Your task to perform on an android device: toggle improve location accuracy Image 0: 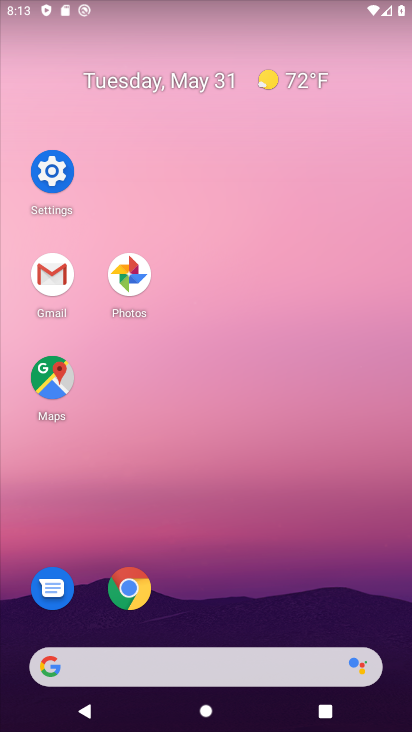
Step 0: click (48, 182)
Your task to perform on an android device: toggle improve location accuracy Image 1: 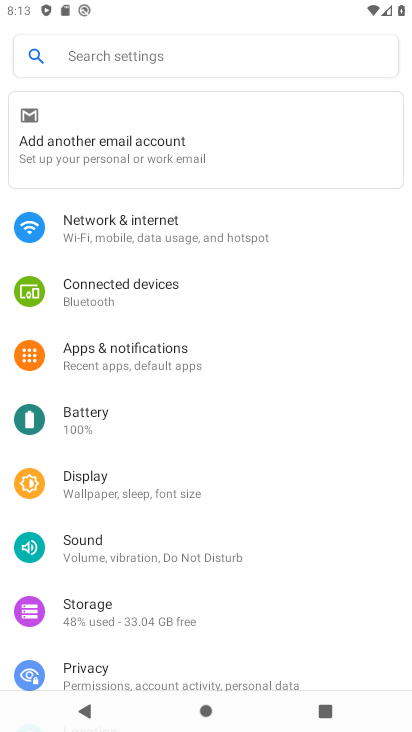
Step 1: drag from (207, 650) to (318, 436)
Your task to perform on an android device: toggle improve location accuracy Image 2: 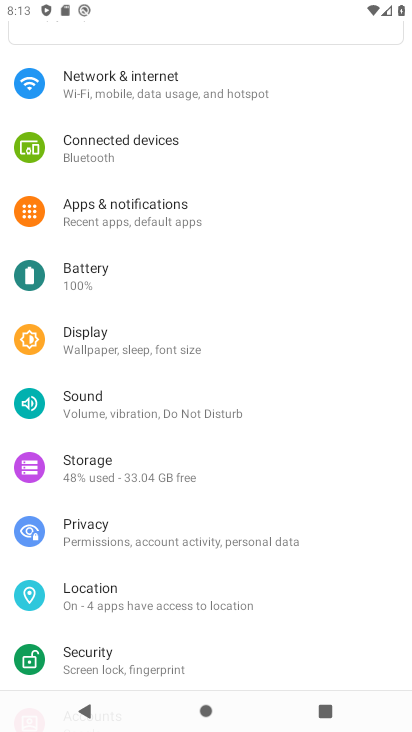
Step 2: click (119, 610)
Your task to perform on an android device: toggle improve location accuracy Image 3: 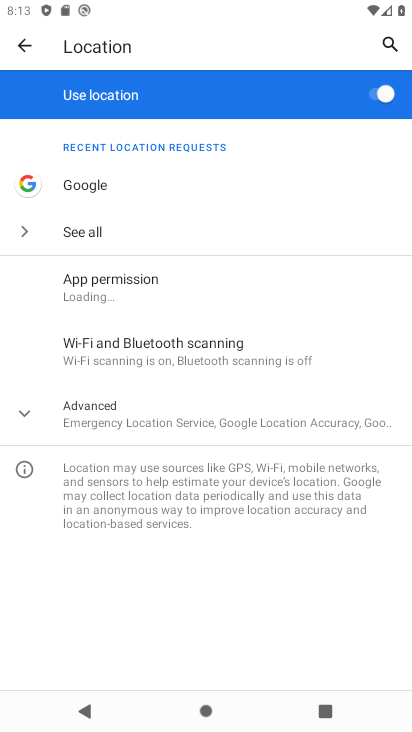
Step 3: click (146, 407)
Your task to perform on an android device: toggle improve location accuracy Image 4: 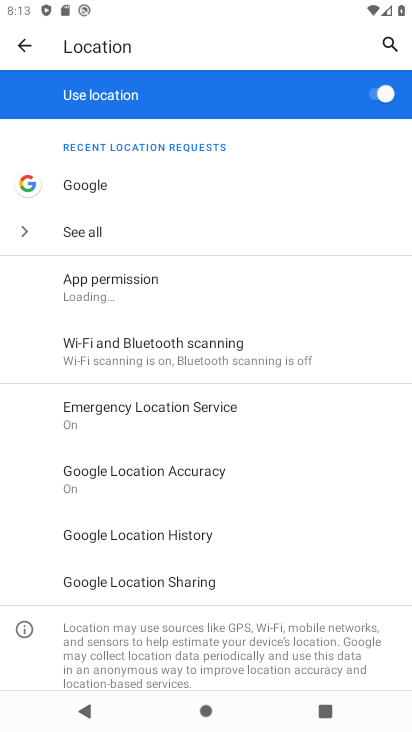
Step 4: click (180, 470)
Your task to perform on an android device: toggle improve location accuracy Image 5: 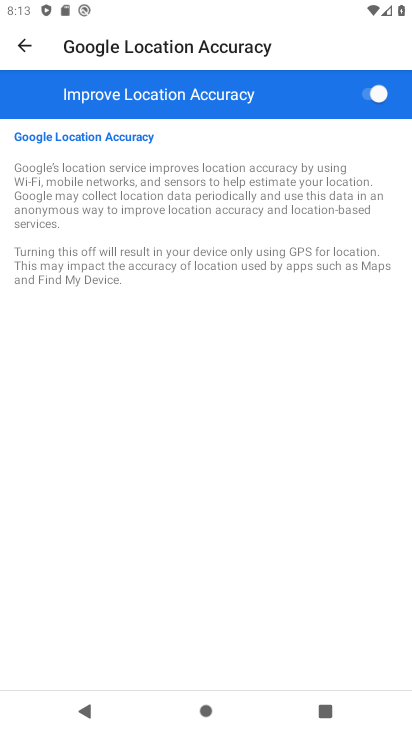
Step 5: click (390, 102)
Your task to perform on an android device: toggle improve location accuracy Image 6: 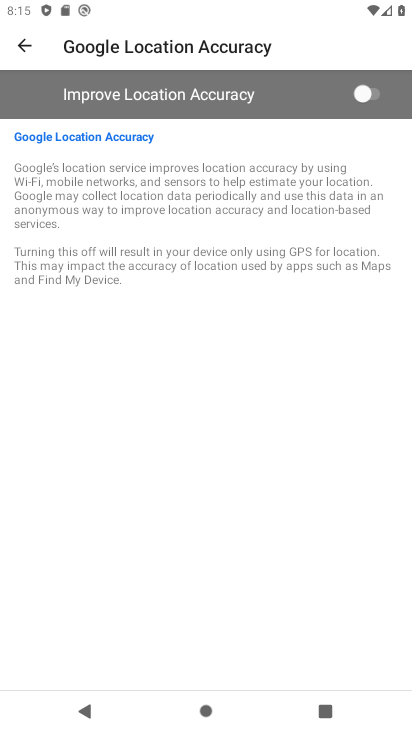
Step 6: task complete